Your task to perform on an android device: choose inbox layout in the gmail app Image 0: 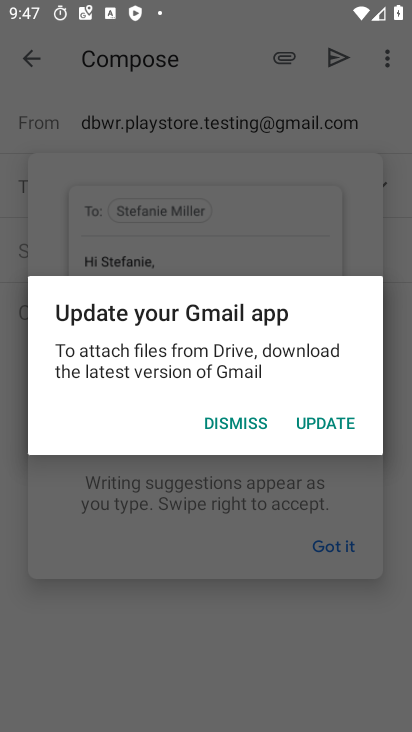
Step 0: press home button
Your task to perform on an android device: choose inbox layout in the gmail app Image 1: 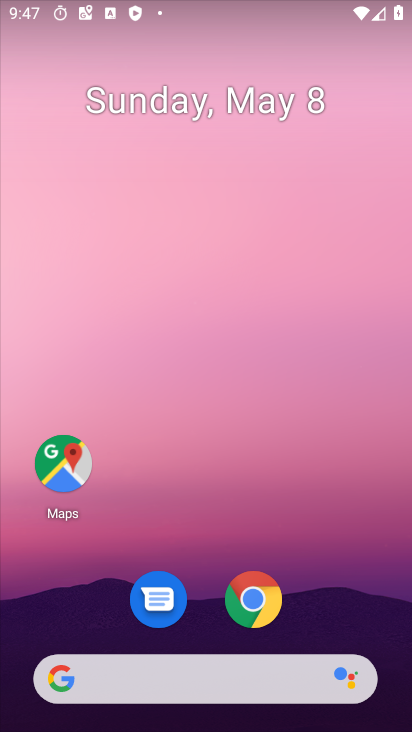
Step 1: drag from (244, 651) to (218, 147)
Your task to perform on an android device: choose inbox layout in the gmail app Image 2: 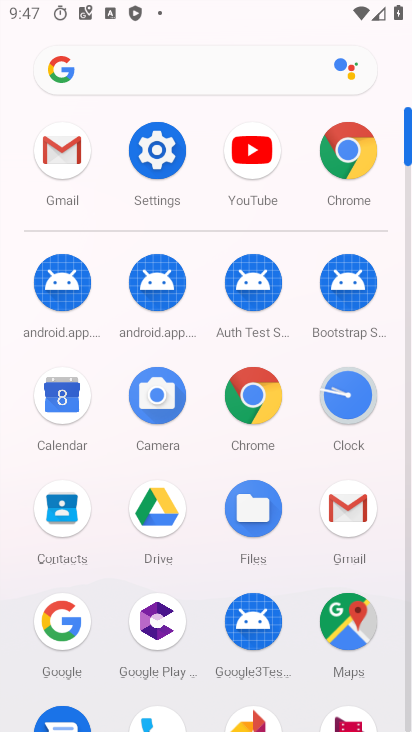
Step 2: click (339, 530)
Your task to perform on an android device: choose inbox layout in the gmail app Image 3: 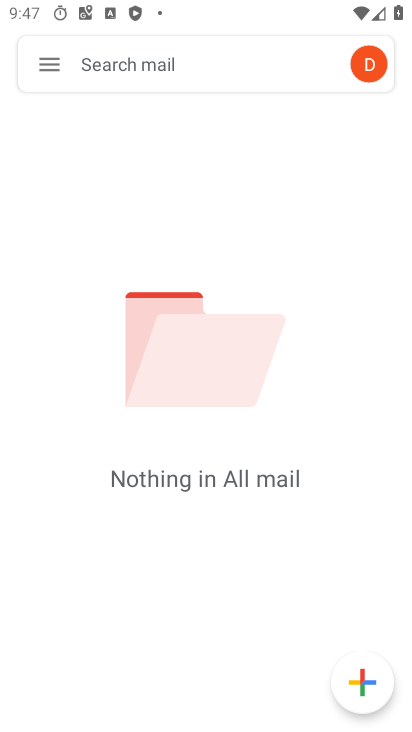
Step 3: press home button
Your task to perform on an android device: choose inbox layout in the gmail app Image 4: 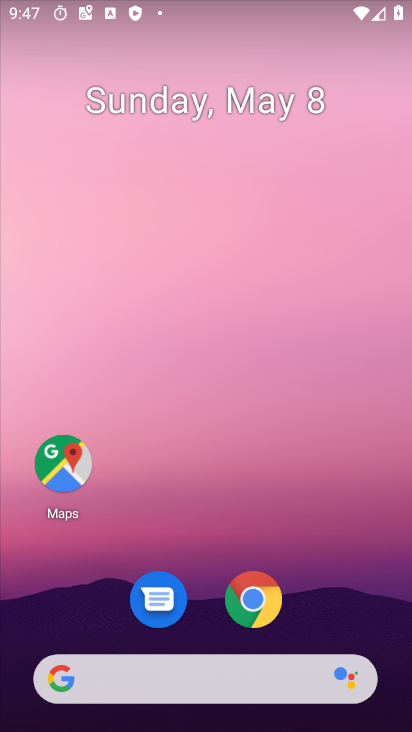
Step 4: drag from (200, 621) to (310, 31)
Your task to perform on an android device: choose inbox layout in the gmail app Image 5: 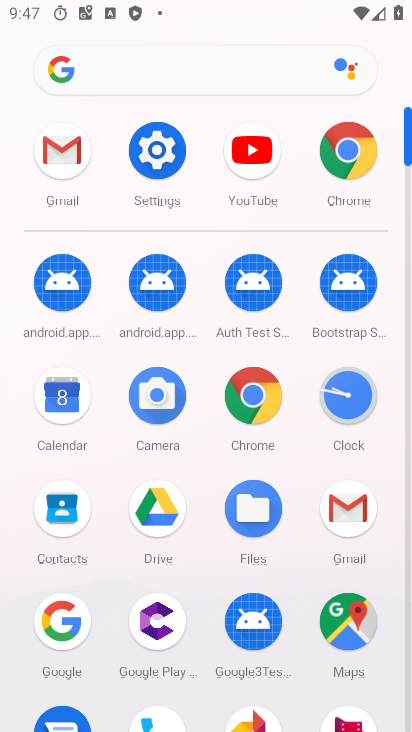
Step 5: click (64, 164)
Your task to perform on an android device: choose inbox layout in the gmail app Image 6: 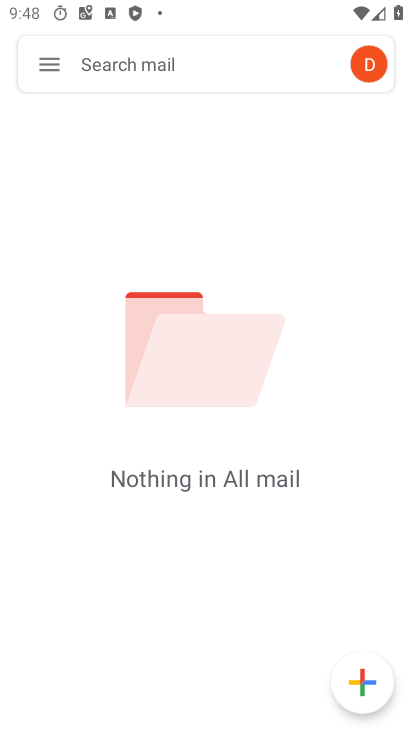
Step 6: click (62, 47)
Your task to perform on an android device: choose inbox layout in the gmail app Image 7: 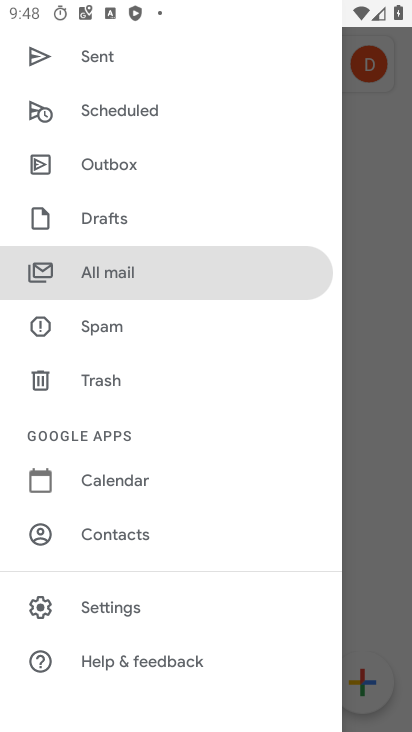
Step 7: drag from (183, 232) to (145, 505)
Your task to perform on an android device: choose inbox layout in the gmail app Image 8: 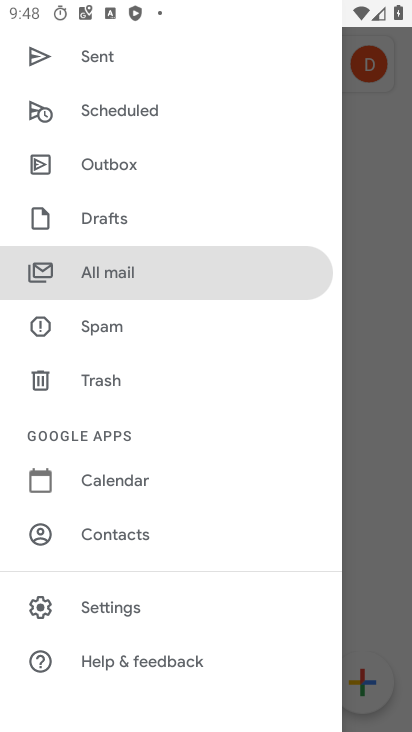
Step 8: click (122, 623)
Your task to perform on an android device: choose inbox layout in the gmail app Image 9: 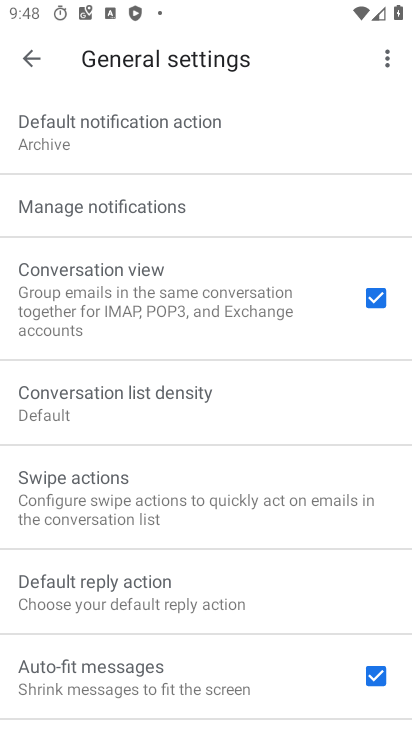
Step 9: click (33, 58)
Your task to perform on an android device: choose inbox layout in the gmail app Image 10: 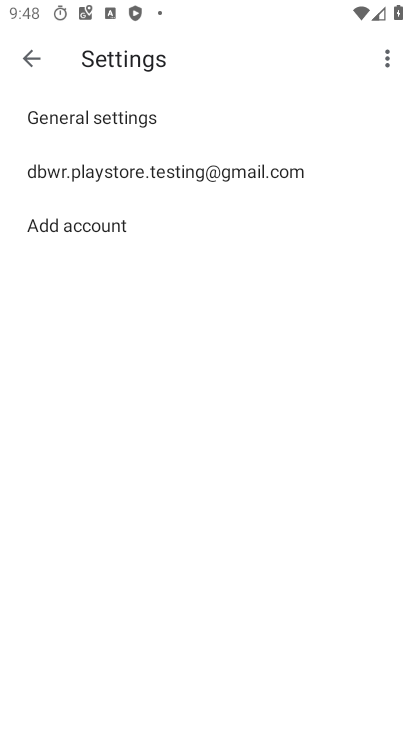
Step 10: click (149, 178)
Your task to perform on an android device: choose inbox layout in the gmail app Image 11: 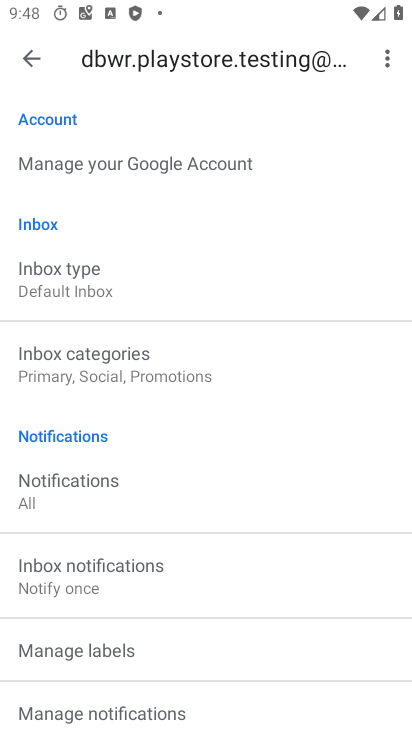
Step 11: task complete